Your task to perform on an android device: What is the recent news? Image 0: 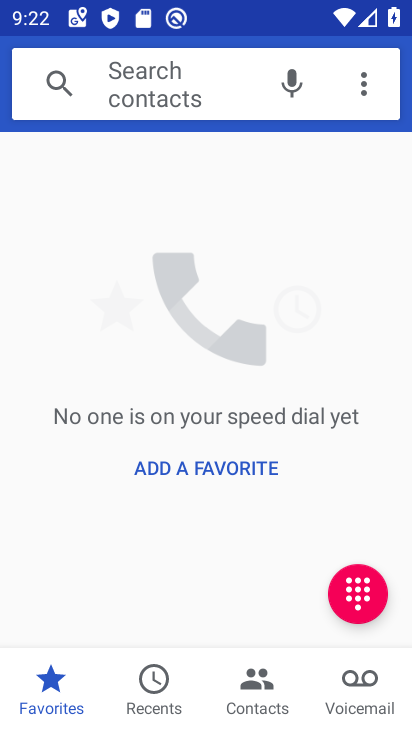
Step 0: press home button
Your task to perform on an android device: What is the recent news? Image 1: 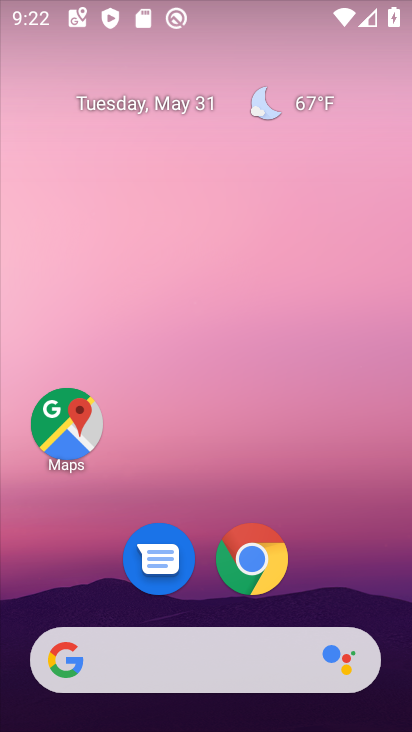
Step 1: drag from (305, 593) to (309, 21)
Your task to perform on an android device: What is the recent news? Image 2: 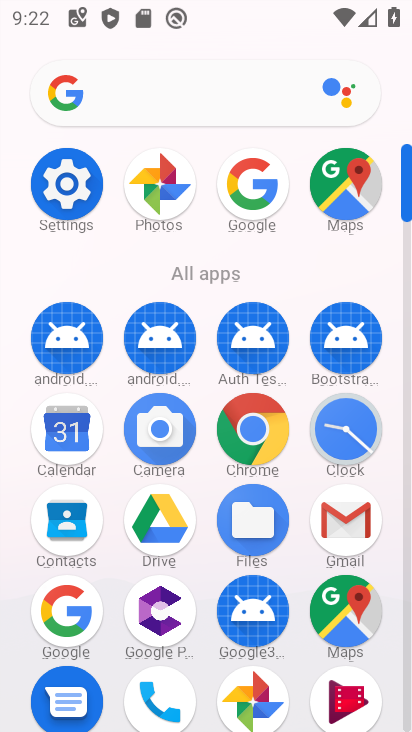
Step 2: click (251, 188)
Your task to perform on an android device: What is the recent news? Image 3: 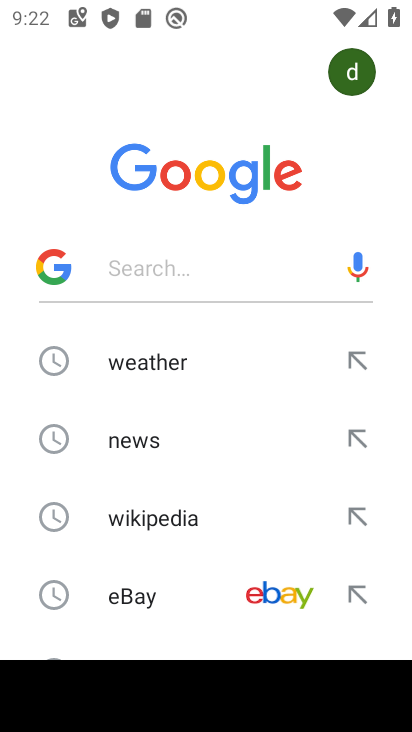
Step 3: drag from (189, 551) to (197, 305)
Your task to perform on an android device: What is the recent news? Image 4: 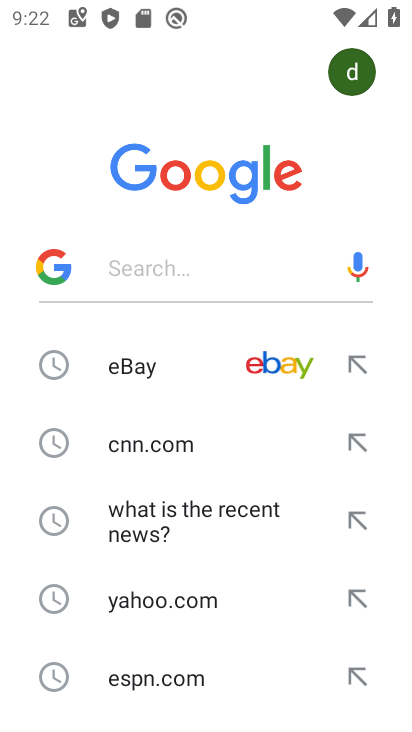
Step 4: click (176, 517)
Your task to perform on an android device: What is the recent news? Image 5: 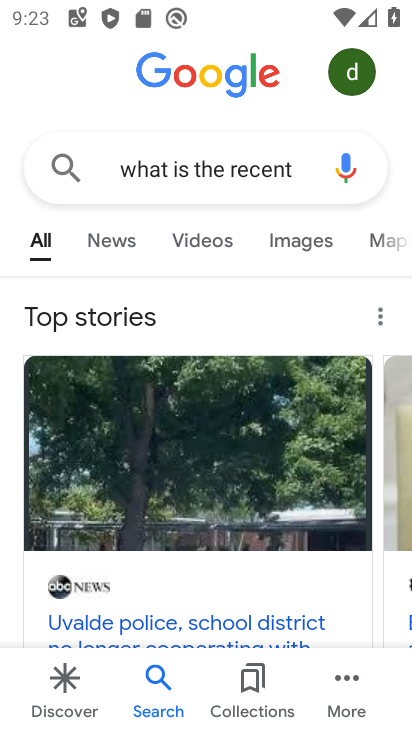
Step 5: task complete